Your task to perform on an android device: toggle location history Image 0: 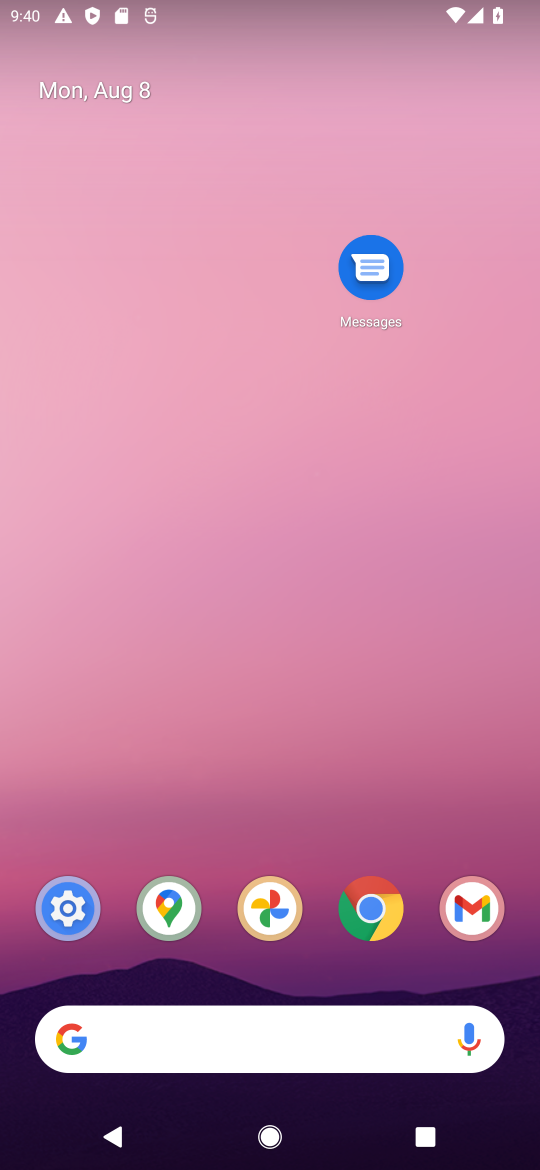
Step 0: click (81, 914)
Your task to perform on an android device: toggle location history Image 1: 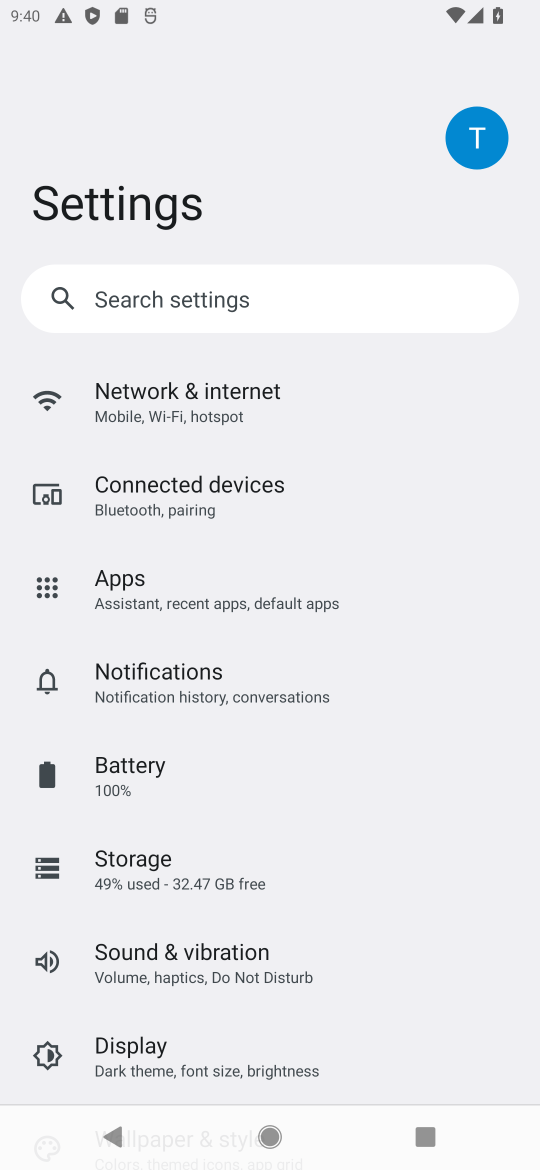
Step 1: drag from (197, 972) to (229, 299)
Your task to perform on an android device: toggle location history Image 2: 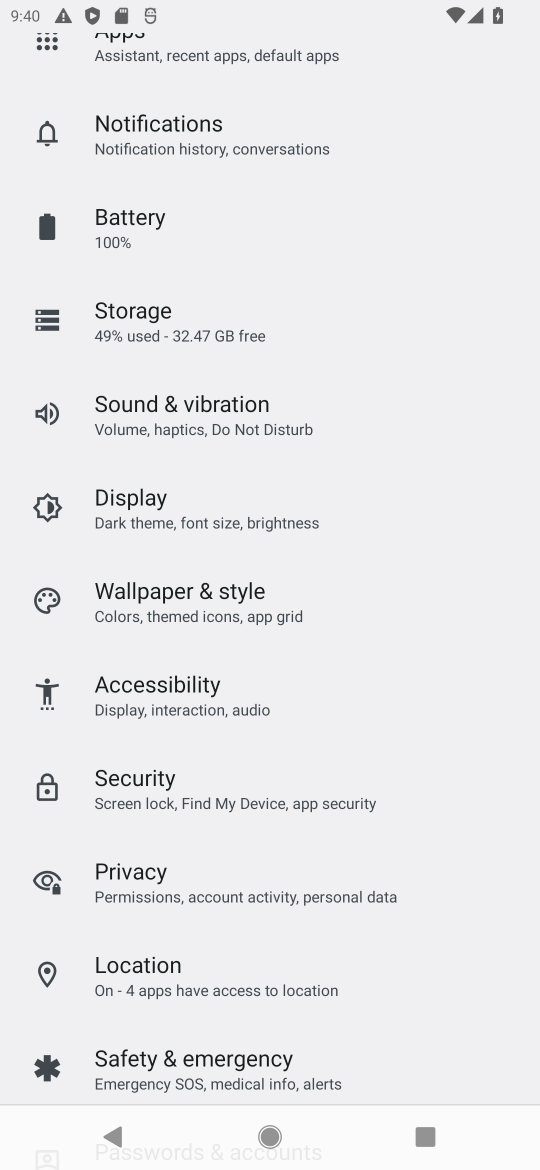
Step 2: drag from (145, 1045) to (224, 316)
Your task to perform on an android device: toggle location history Image 3: 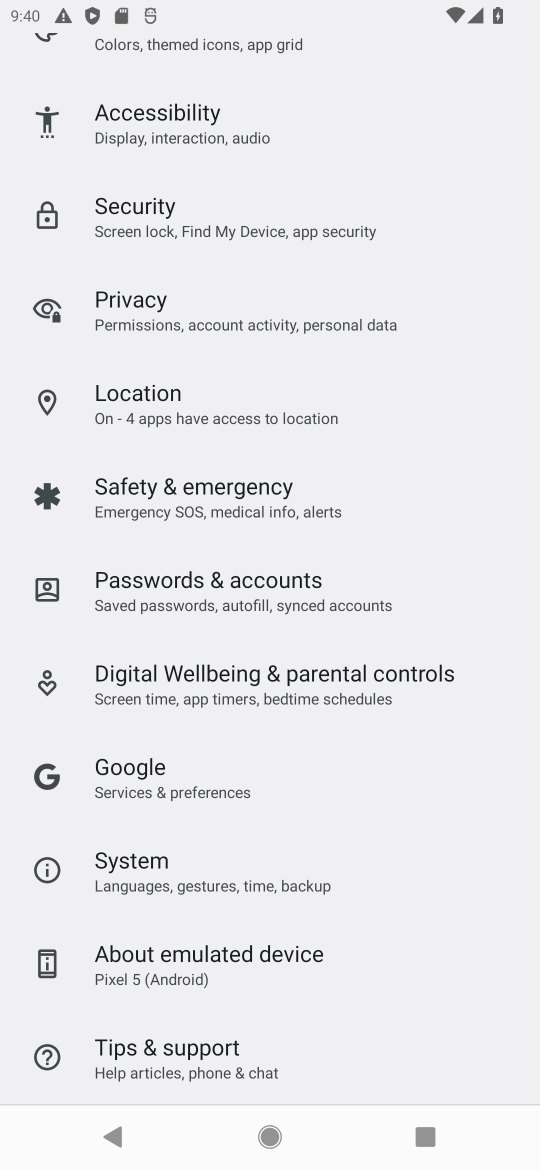
Step 3: click (150, 406)
Your task to perform on an android device: toggle location history Image 4: 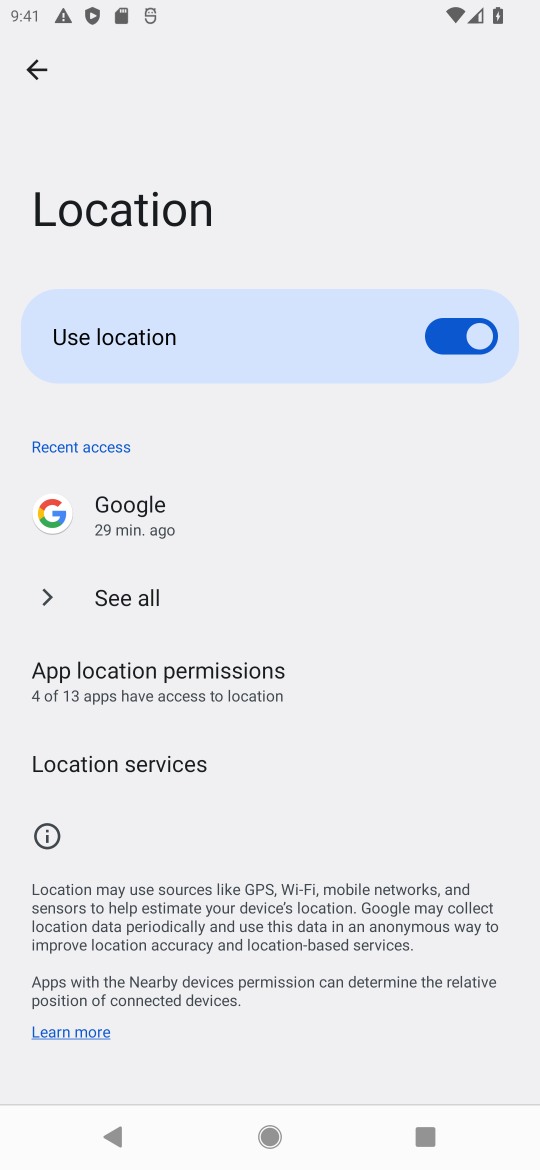
Step 4: click (155, 785)
Your task to perform on an android device: toggle location history Image 5: 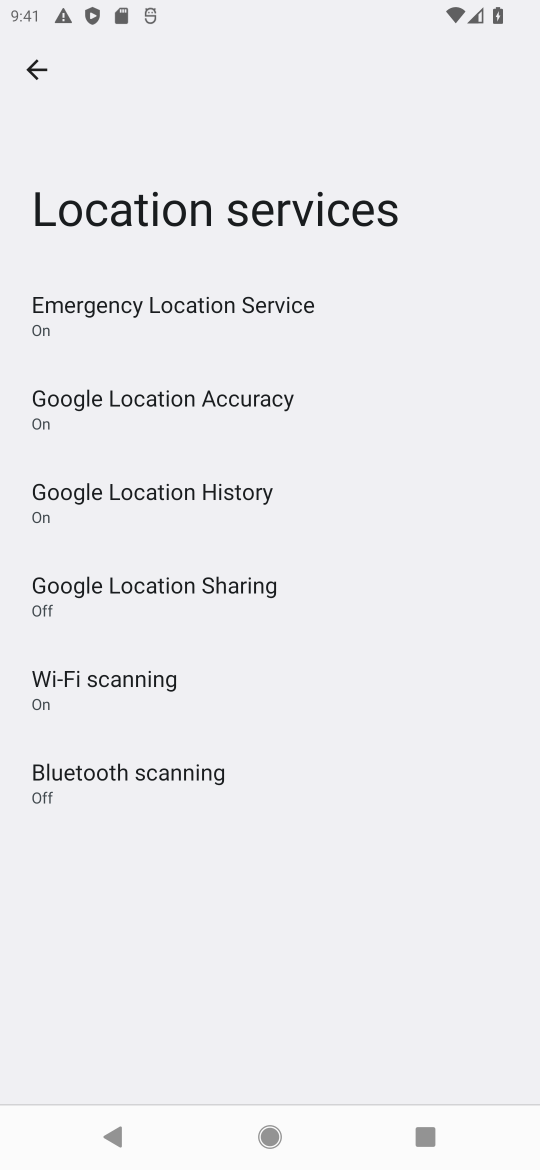
Step 5: click (302, 487)
Your task to perform on an android device: toggle location history Image 6: 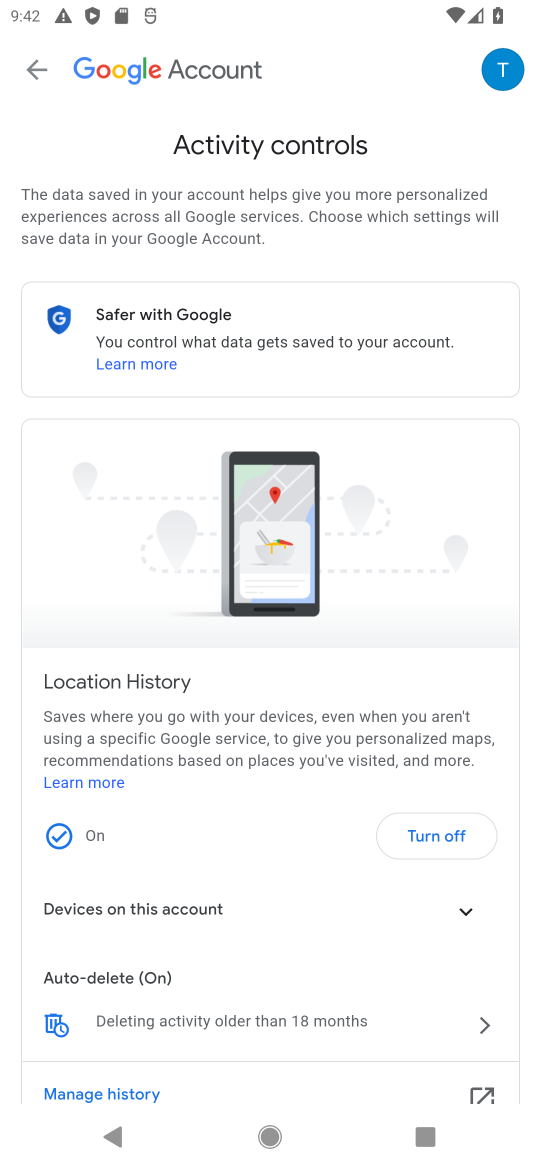
Step 6: drag from (266, 949) to (257, 319)
Your task to perform on an android device: toggle location history Image 7: 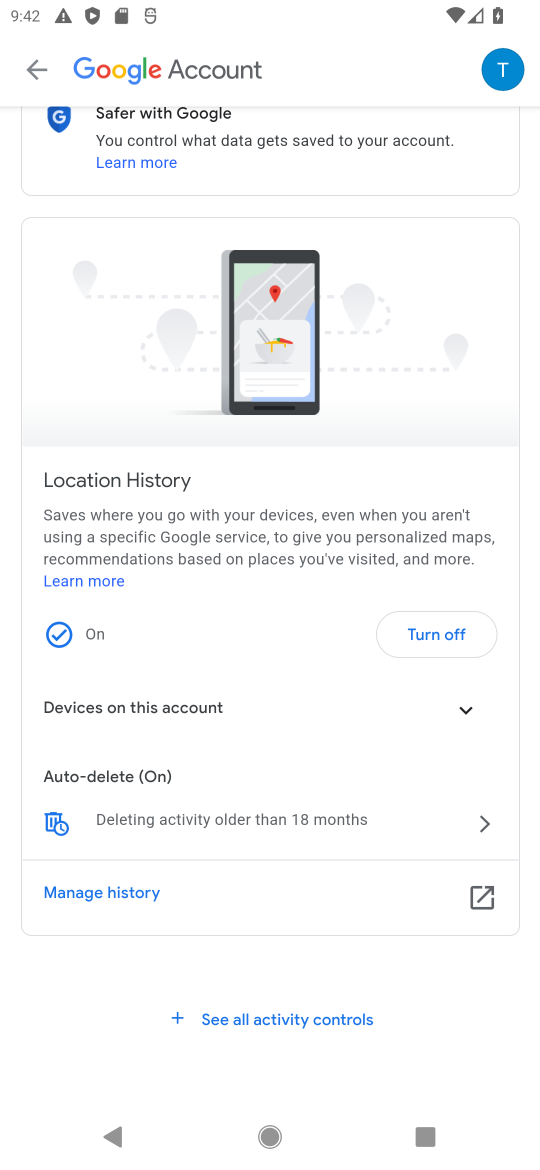
Step 7: click (397, 629)
Your task to perform on an android device: toggle location history Image 8: 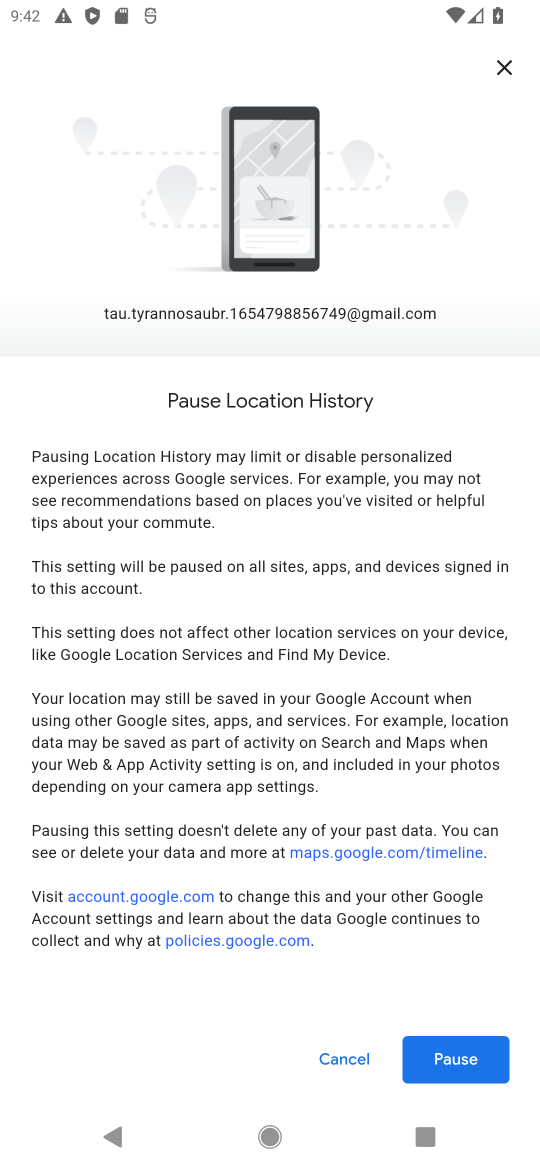
Step 8: drag from (111, 829) to (139, 263)
Your task to perform on an android device: toggle location history Image 9: 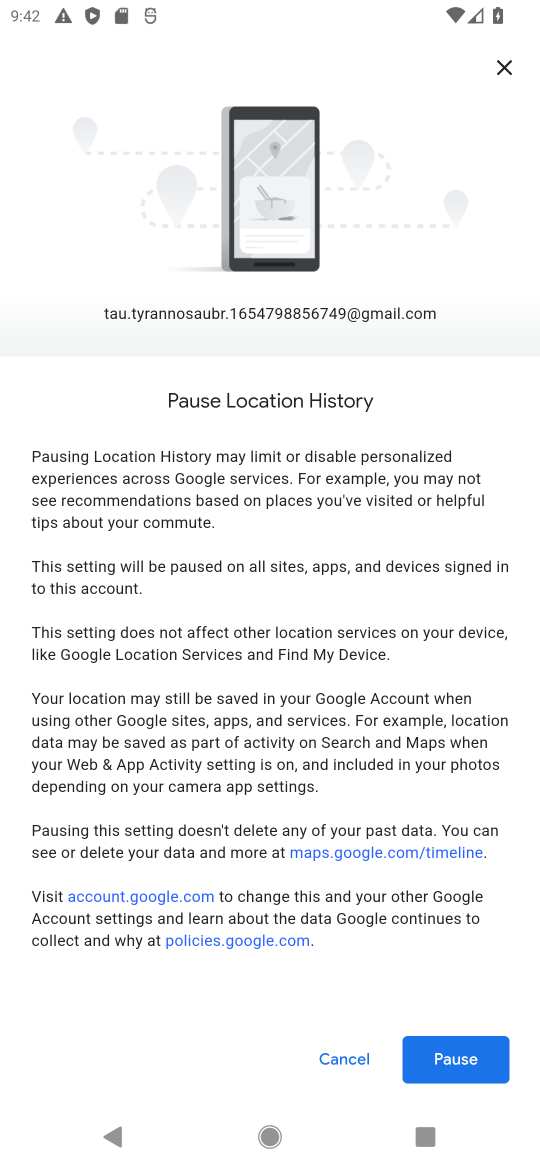
Step 9: click (438, 1038)
Your task to perform on an android device: toggle location history Image 10: 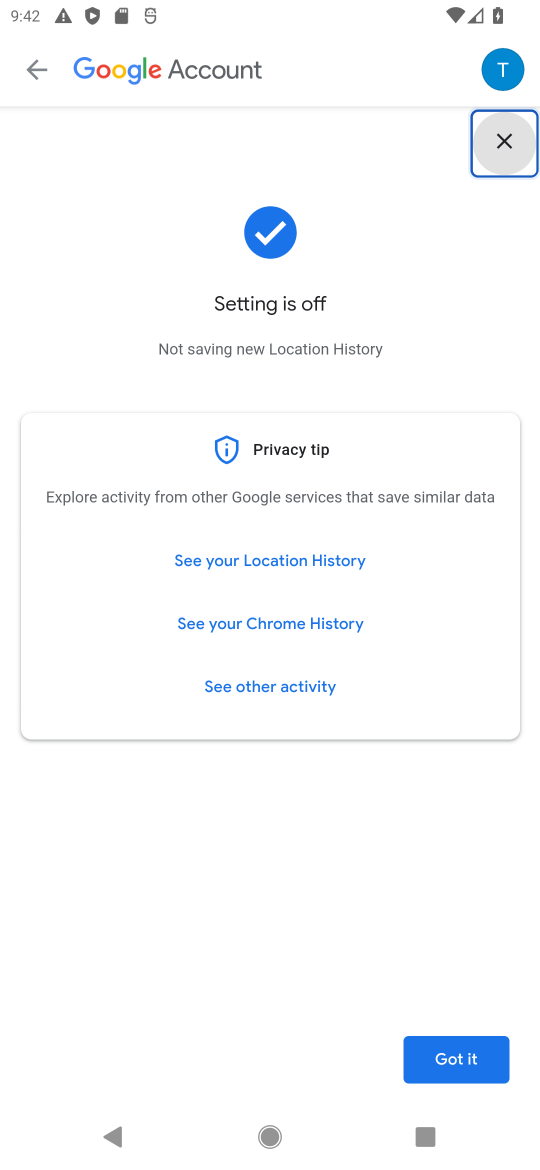
Step 10: task complete